Your task to perform on an android device: turn off wifi Image 0: 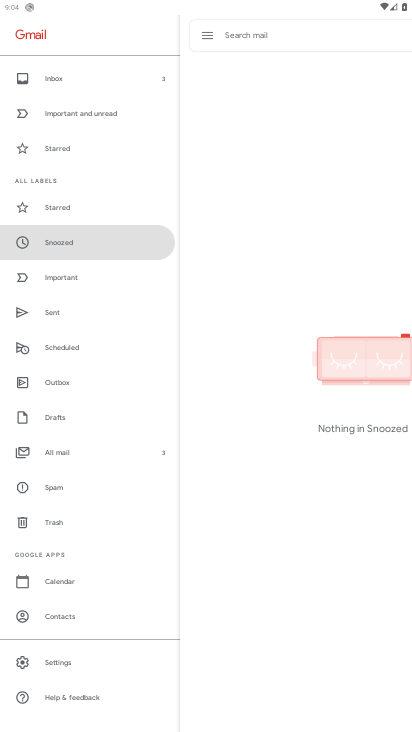
Step 0: press home button
Your task to perform on an android device: turn off wifi Image 1: 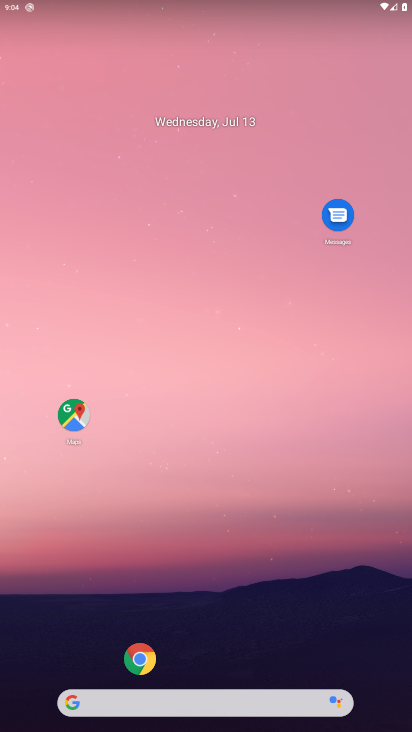
Step 1: drag from (62, 687) to (212, 138)
Your task to perform on an android device: turn off wifi Image 2: 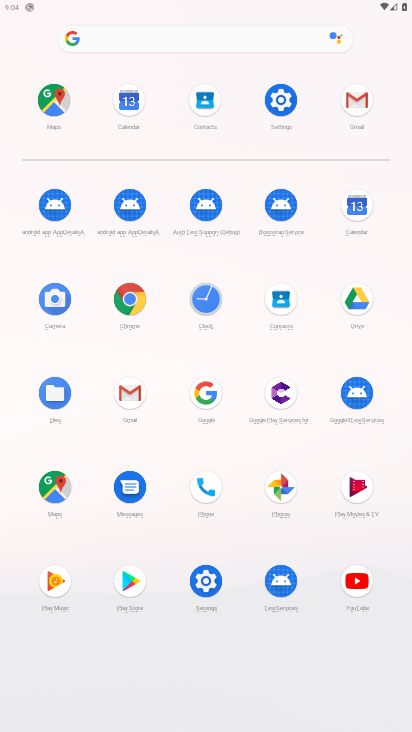
Step 2: click (197, 580)
Your task to perform on an android device: turn off wifi Image 3: 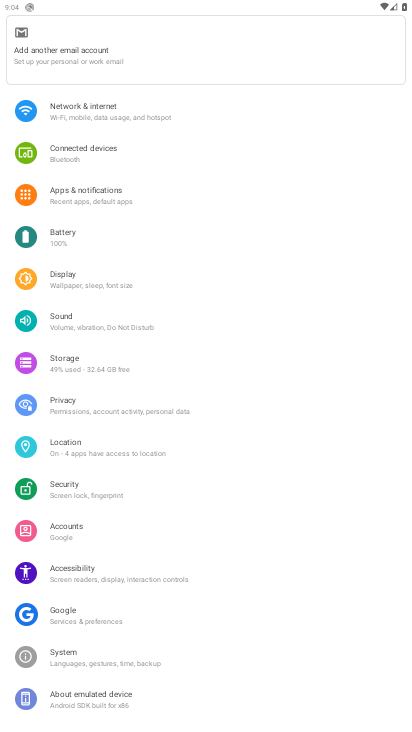
Step 3: click (74, 113)
Your task to perform on an android device: turn off wifi Image 4: 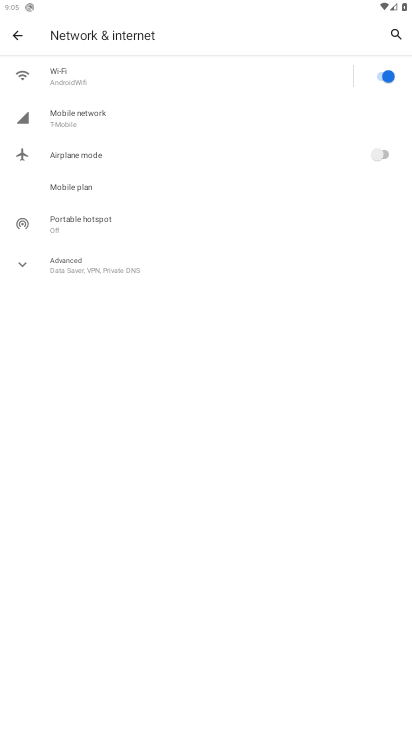
Step 4: click (382, 77)
Your task to perform on an android device: turn off wifi Image 5: 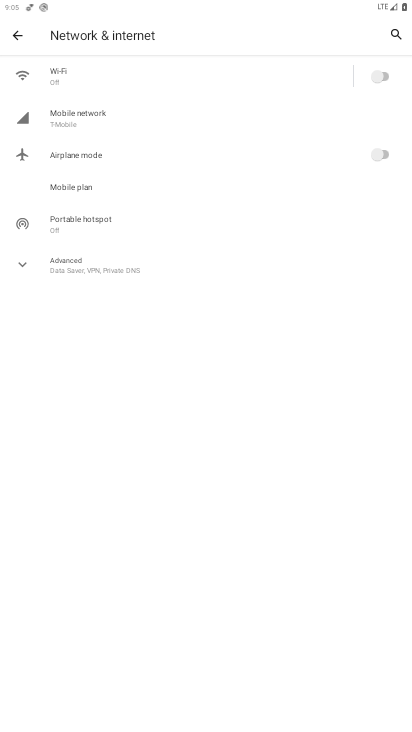
Step 5: task complete